Your task to perform on an android device: change alarm snooze length Image 0: 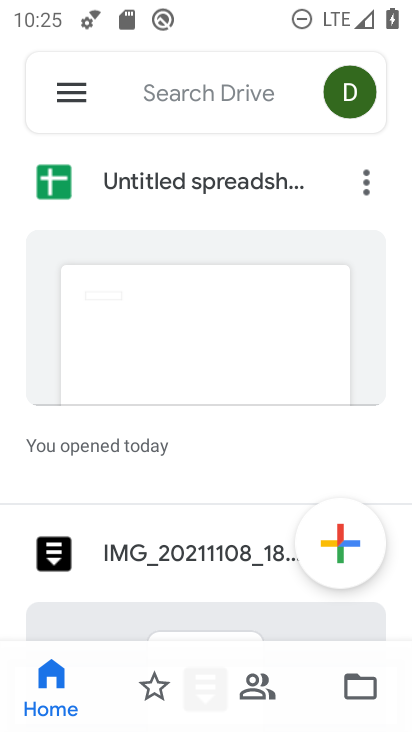
Step 0: press home button
Your task to perform on an android device: change alarm snooze length Image 1: 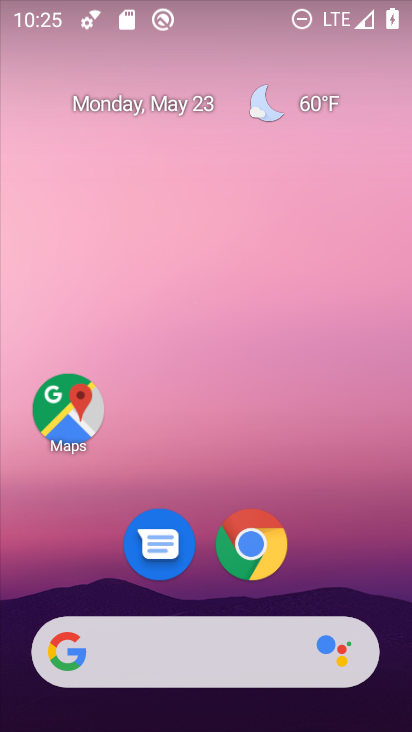
Step 1: drag from (343, 526) to (283, 294)
Your task to perform on an android device: change alarm snooze length Image 2: 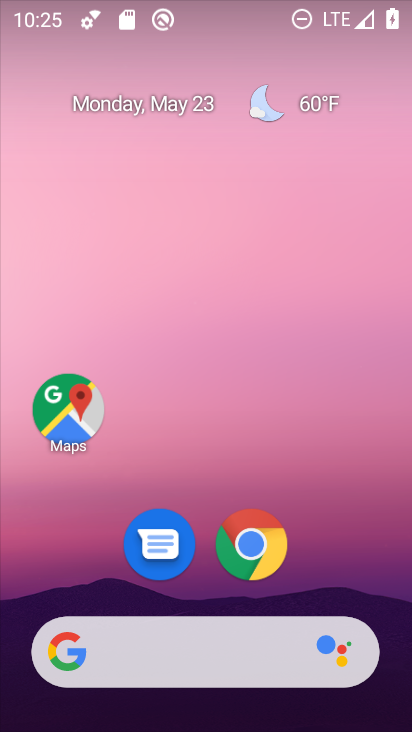
Step 2: drag from (348, 550) to (97, 149)
Your task to perform on an android device: change alarm snooze length Image 3: 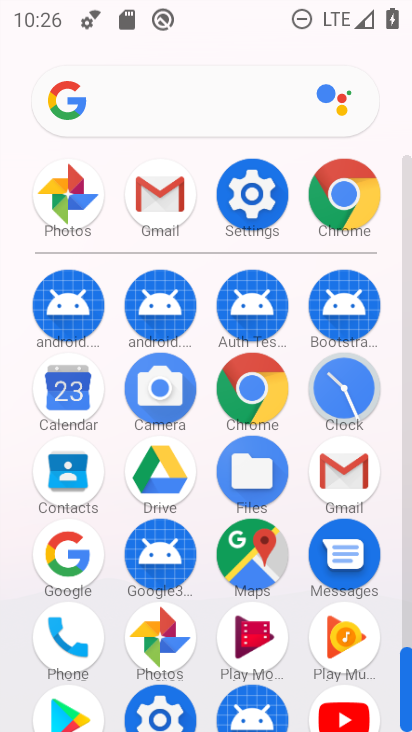
Step 3: click (339, 400)
Your task to perform on an android device: change alarm snooze length Image 4: 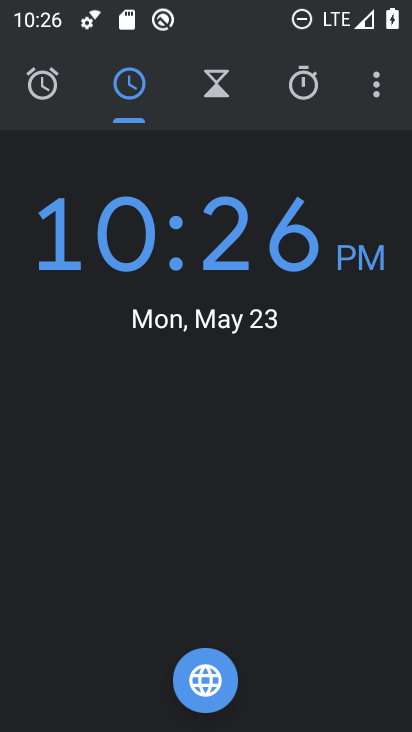
Step 4: click (366, 84)
Your task to perform on an android device: change alarm snooze length Image 5: 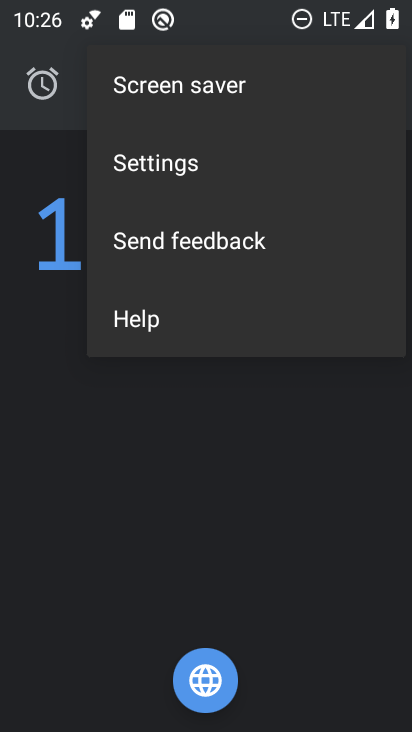
Step 5: click (172, 165)
Your task to perform on an android device: change alarm snooze length Image 6: 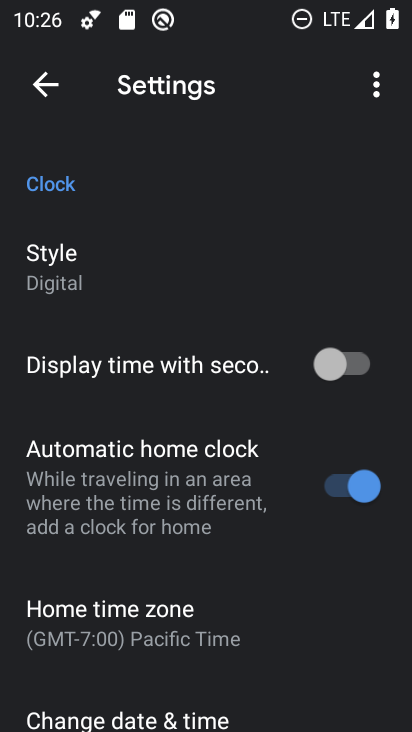
Step 6: drag from (213, 646) to (179, 239)
Your task to perform on an android device: change alarm snooze length Image 7: 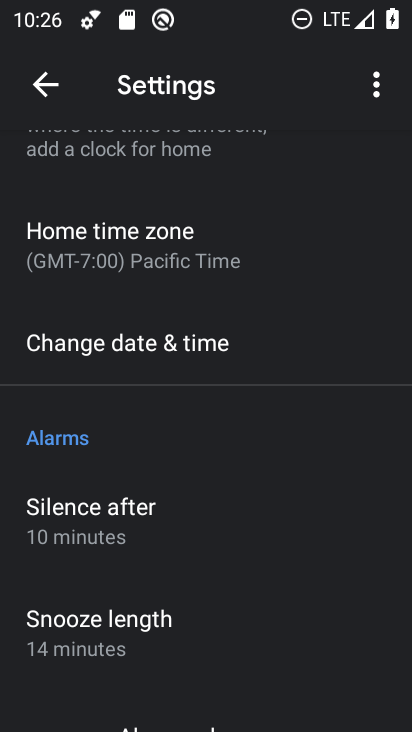
Step 7: click (136, 620)
Your task to perform on an android device: change alarm snooze length Image 8: 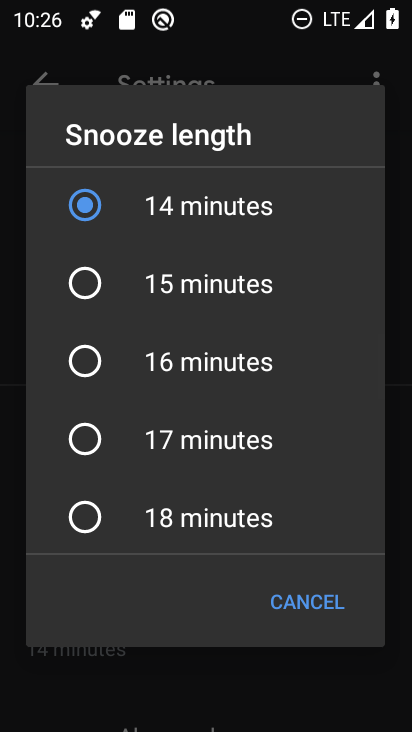
Step 8: click (97, 517)
Your task to perform on an android device: change alarm snooze length Image 9: 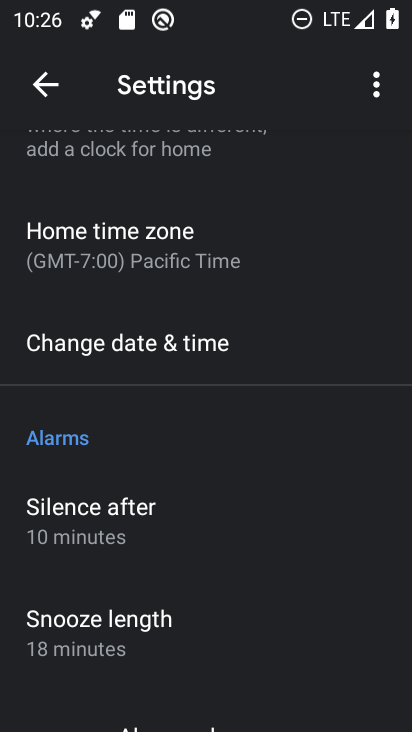
Step 9: task complete